Your task to perform on an android device: Search for sushi restaurants on Maps Image 0: 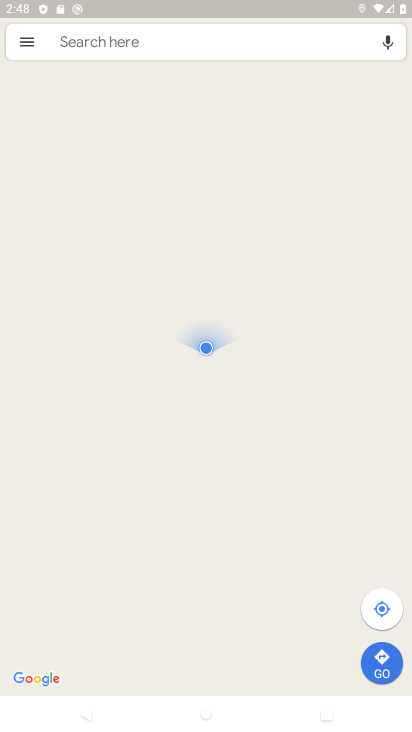
Step 0: click (140, 40)
Your task to perform on an android device: Search for sushi restaurants on Maps Image 1: 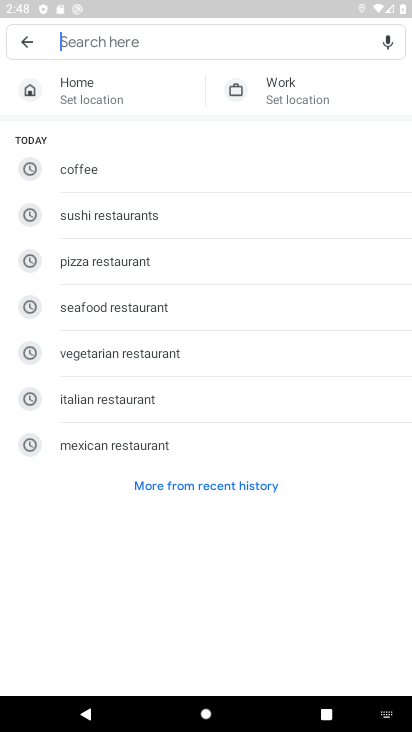
Step 1: click (133, 217)
Your task to perform on an android device: Search for sushi restaurants on Maps Image 2: 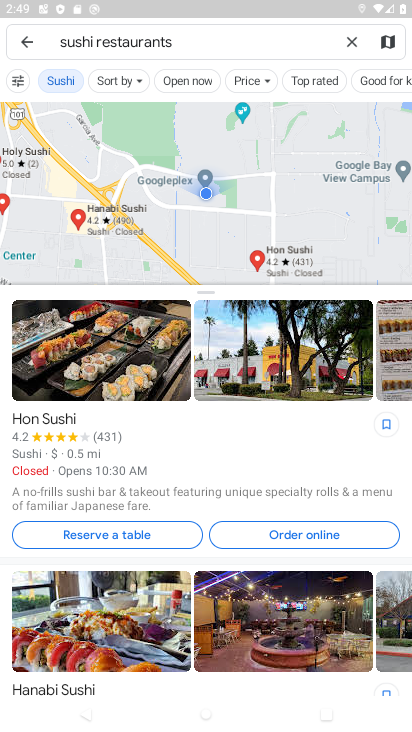
Step 2: task complete